Your task to perform on an android device: toggle wifi Image 0: 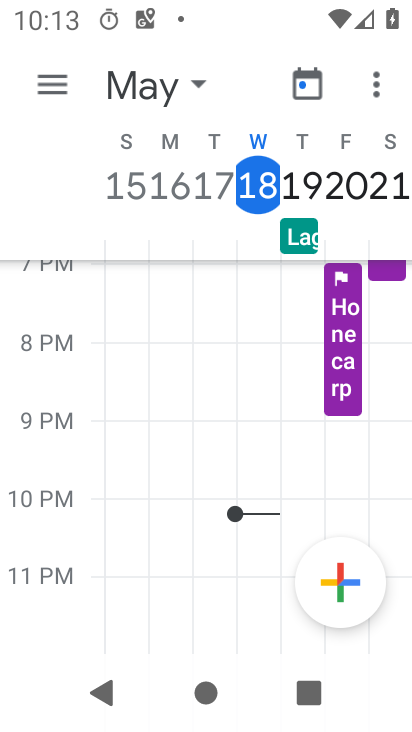
Step 0: press home button
Your task to perform on an android device: toggle wifi Image 1: 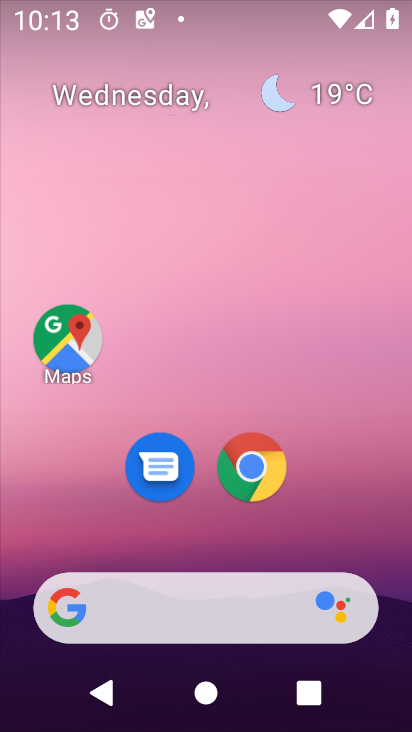
Step 1: drag from (320, 497) to (197, 0)
Your task to perform on an android device: toggle wifi Image 2: 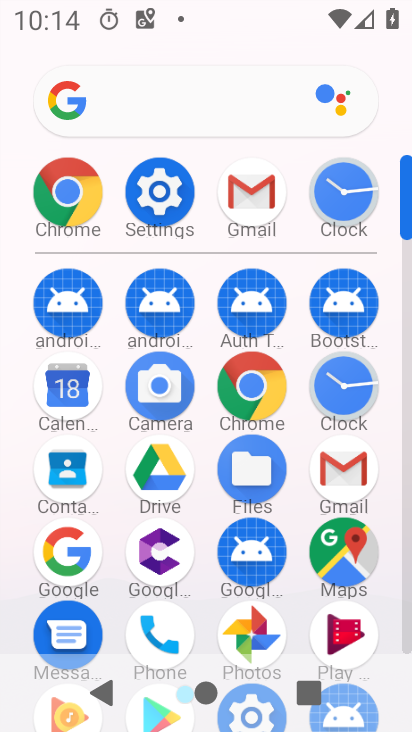
Step 2: click (160, 191)
Your task to perform on an android device: toggle wifi Image 3: 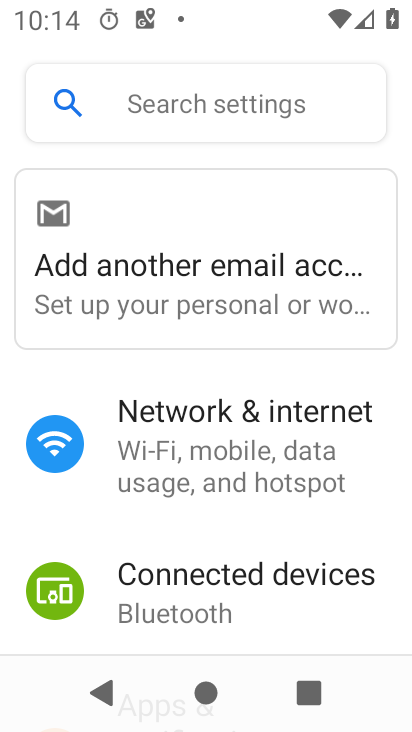
Step 3: click (262, 435)
Your task to perform on an android device: toggle wifi Image 4: 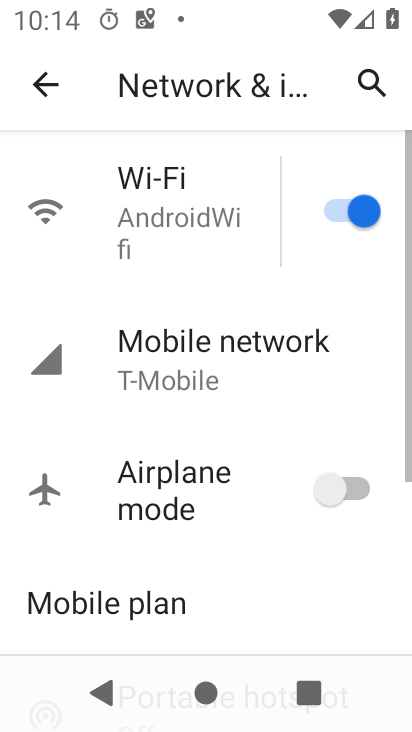
Step 4: click (176, 184)
Your task to perform on an android device: toggle wifi Image 5: 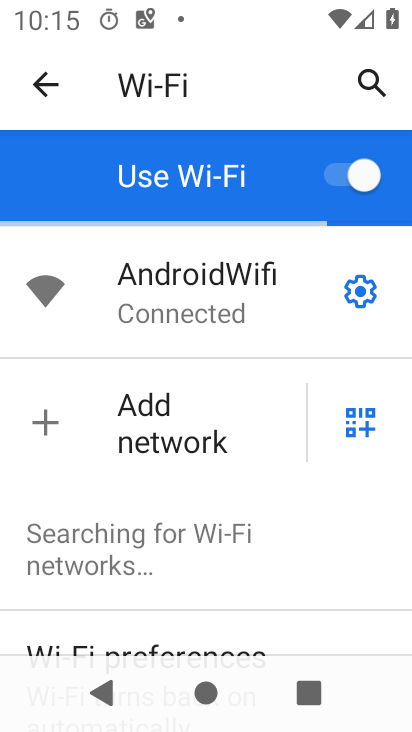
Step 5: task complete